Your task to perform on an android device: Empty the shopping cart on target.com. Add "dell alienware" to the cart on target.com, then select checkout. Image 0: 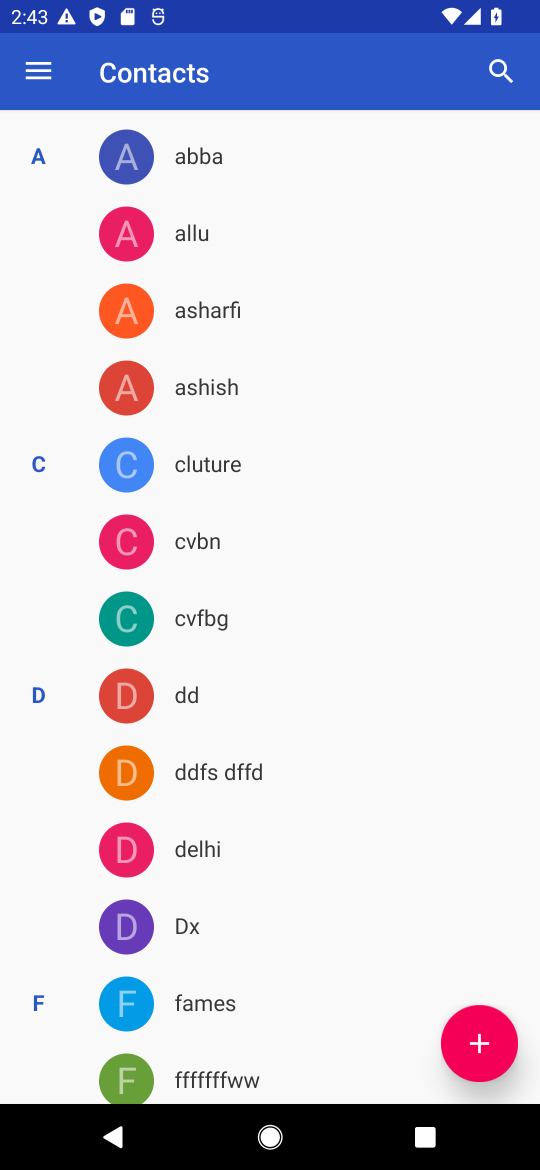
Step 0: press home button
Your task to perform on an android device: Empty the shopping cart on target.com. Add "dell alienware" to the cart on target.com, then select checkout. Image 1: 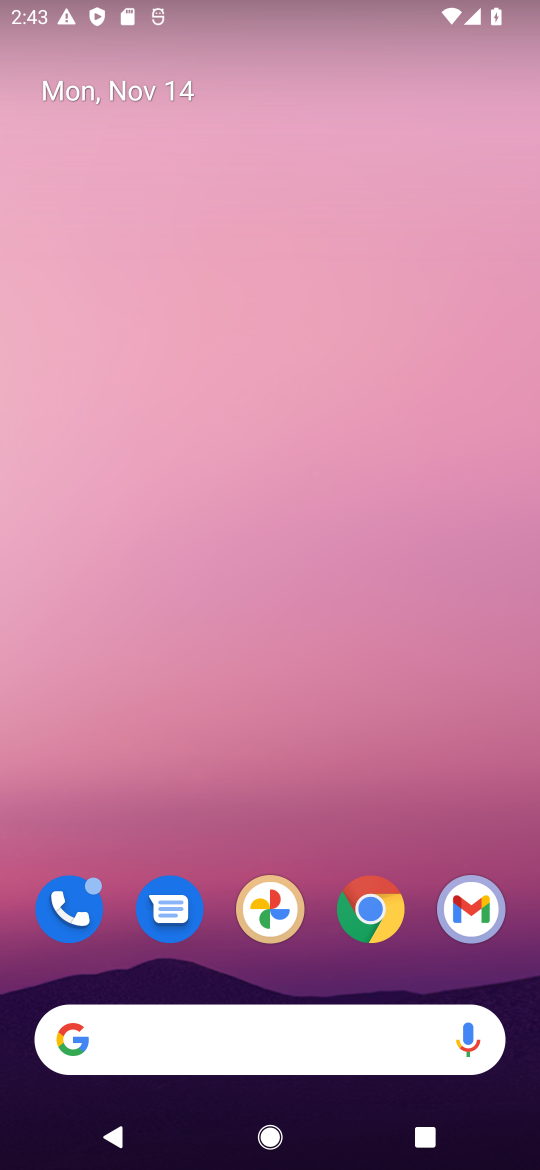
Step 1: drag from (304, 979) to (310, 111)
Your task to perform on an android device: Empty the shopping cart on target.com. Add "dell alienware" to the cart on target.com, then select checkout. Image 2: 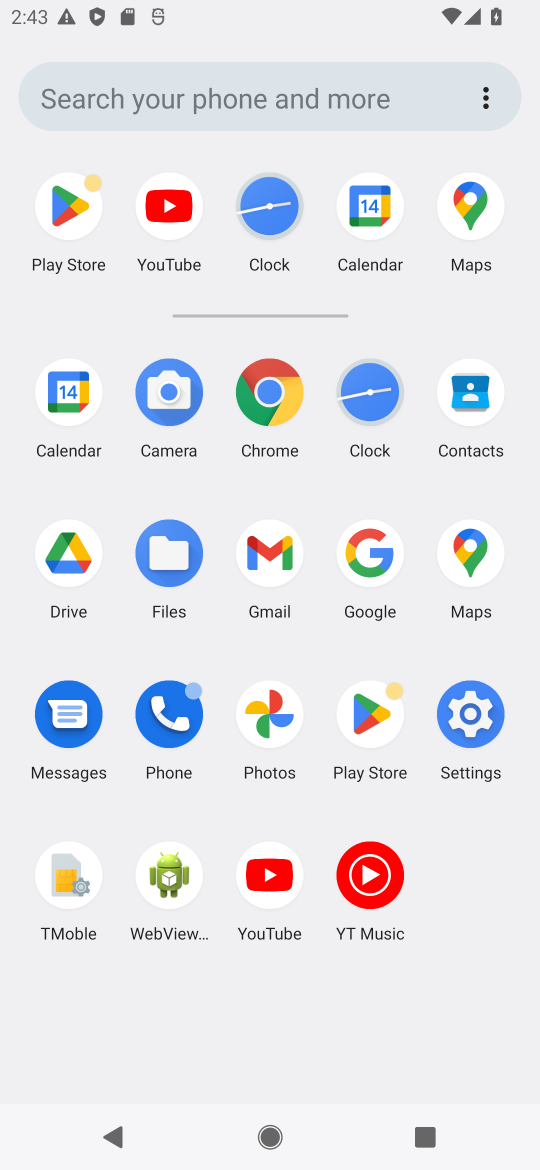
Step 2: click (266, 407)
Your task to perform on an android device: Empty the shopping cart on target.com. Add "dell alienware" to the cart on target.com, then select checkout. Image 3: 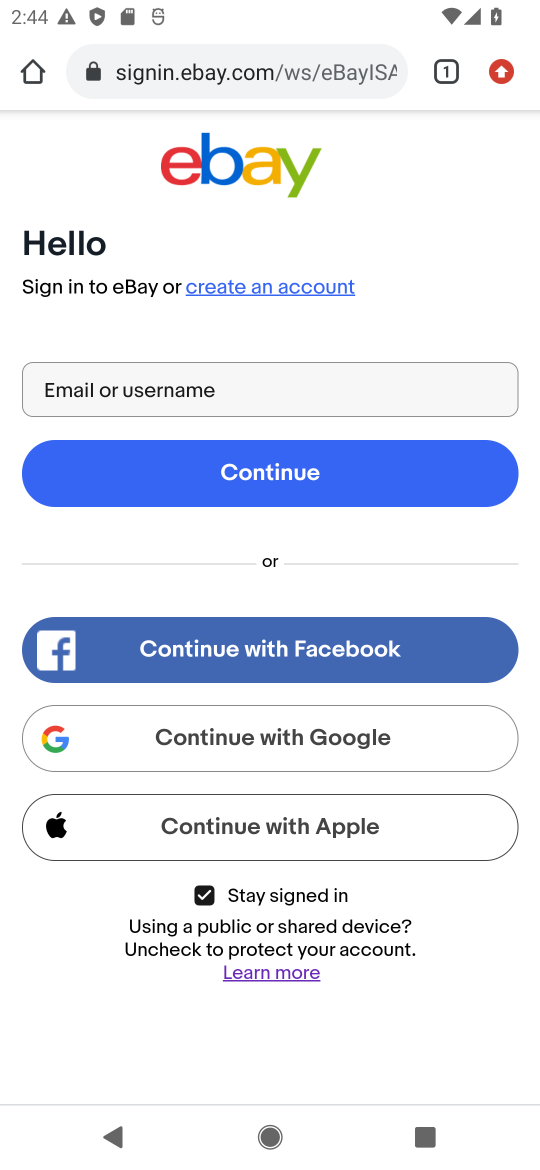
Step 3: click (339, 77)
Your task to perform on an android device: Empty the shopping cart on target.com. Add "dell alienware" to the cart on target.com, then select checkout. Image 4: 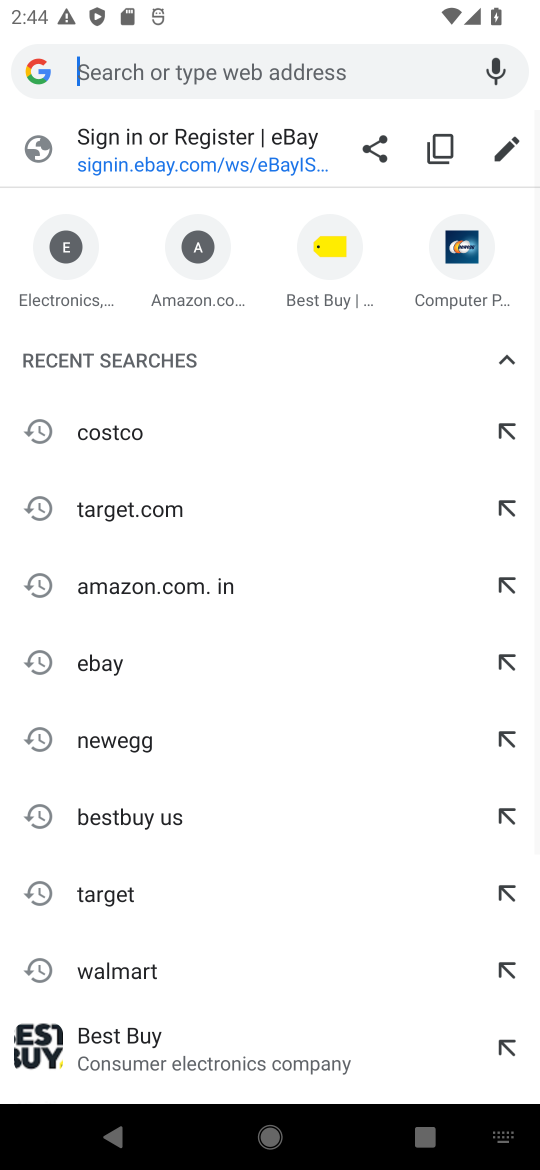
Step 4: type "target.com"
Your task to perform on an android device: Empty the shopping cart on target.com. Add "dell alienware" to the cart on target.com, then select checkout. Image 5: 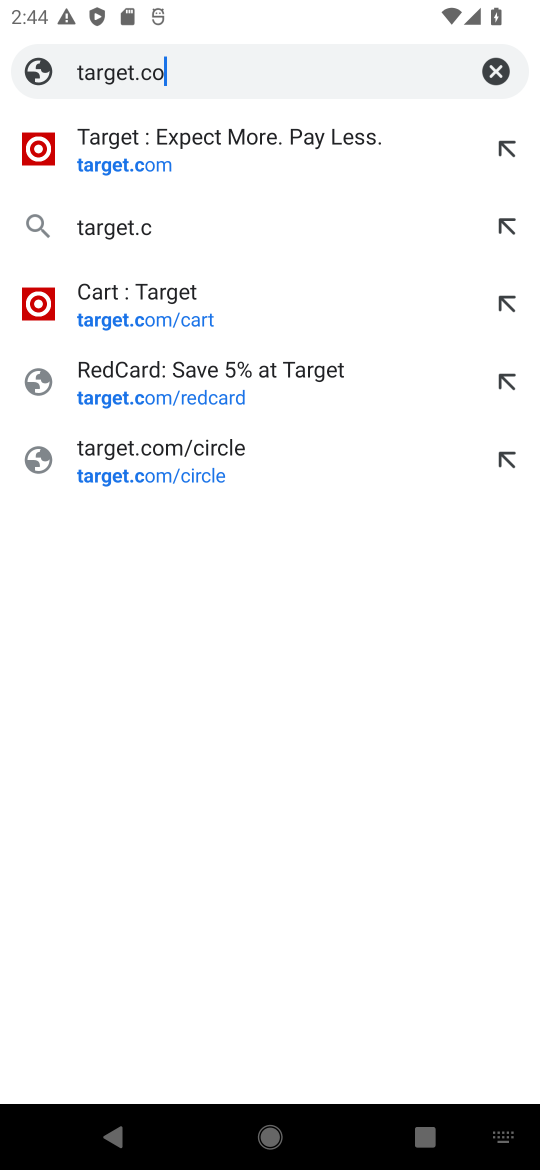
Step 5: press enter
Your task to perform on an android device: Empty the shopping cart on target.com. Add "dell alienware" to the cart on target.com, then select checkout. Image 6: 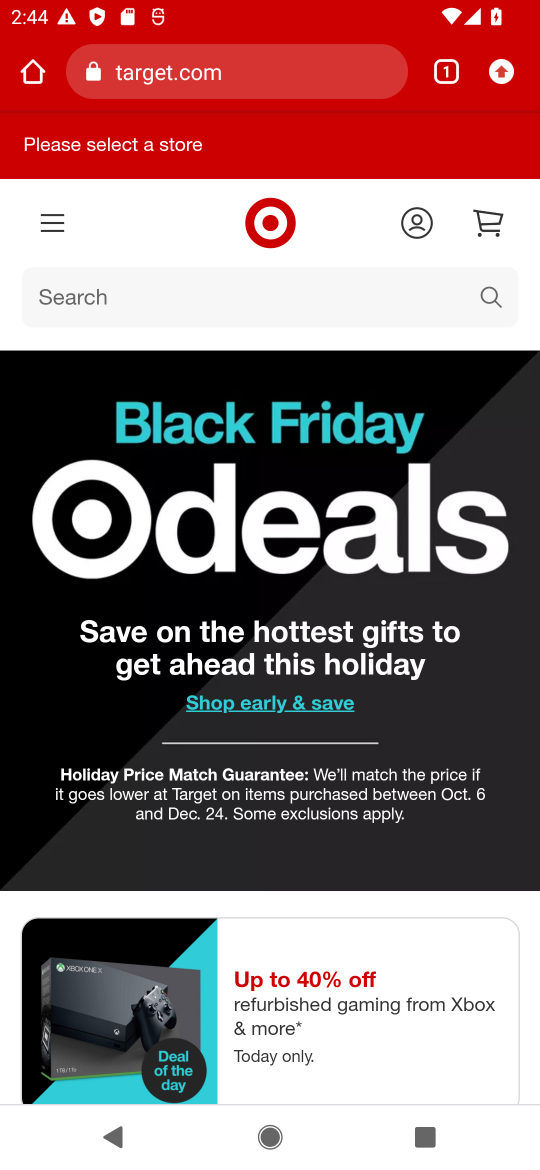
Step 6: click (490, 217)
Your task to perform on an android device: Empty the shopping cart on target.com. Add "dell alienware" to the cart on target.com, then select checkout. Image 7: 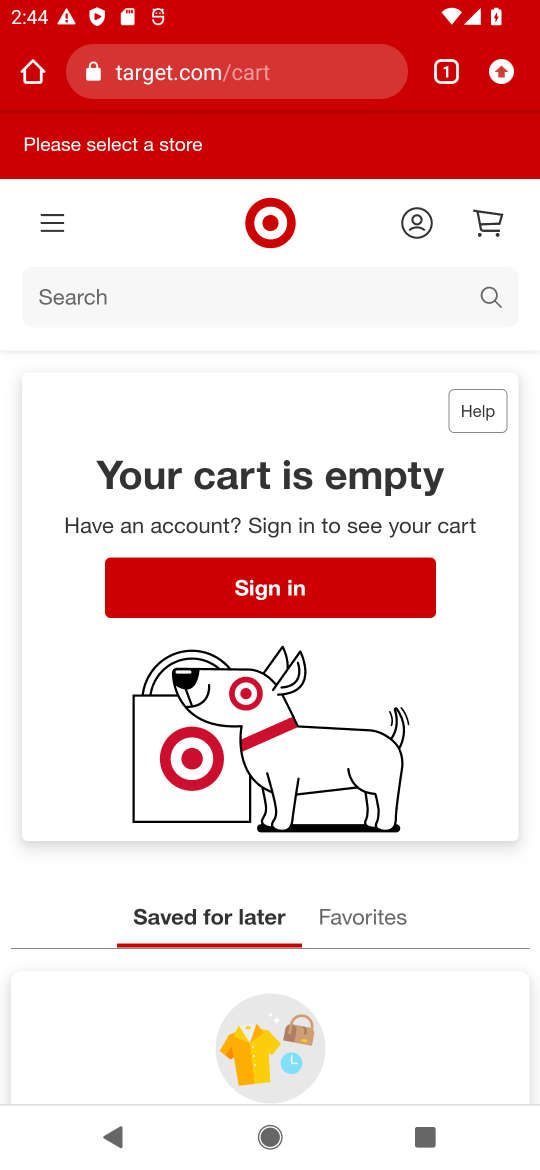
Step 7: click (314, 301)
Your task to perform on an android device: Empty the shopping cart on target.com. Add "dell alienware" to the cart on target.com, then select checkout. Image 8: 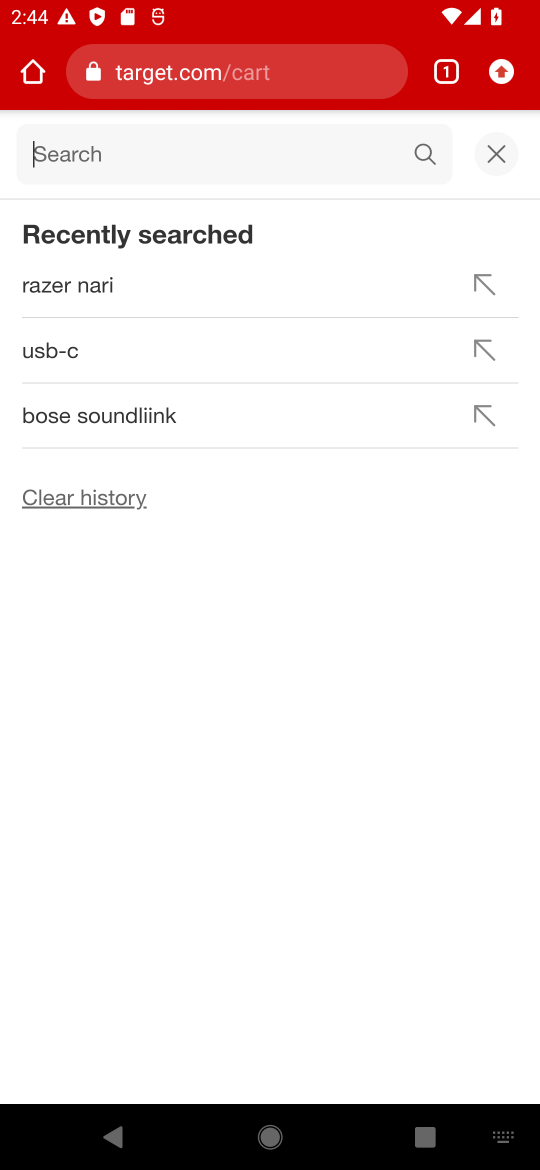
Step 8: type "dell alienware"
Your task to perform on an android device: Empty the shopping cart on target.com. Add "dell alienware" to the cart on target.com, then select checkout. Image 9: 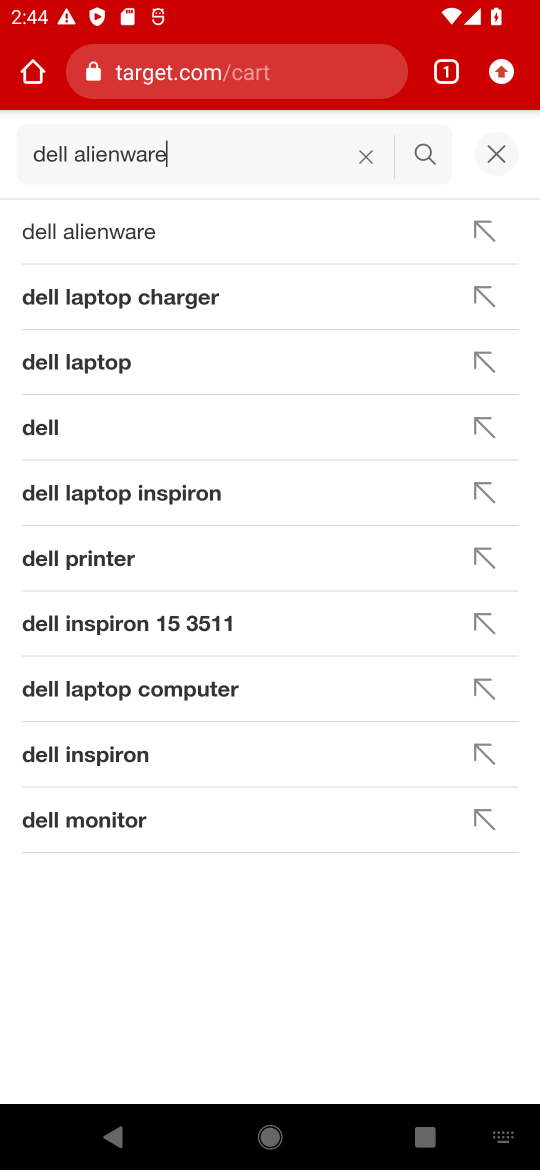
Step 9: press enter
Your task to perform on an android device: Empty the shopping cart on target.com. Add "dell alienware" to the cart on target.com, then select checkout. Image 10: 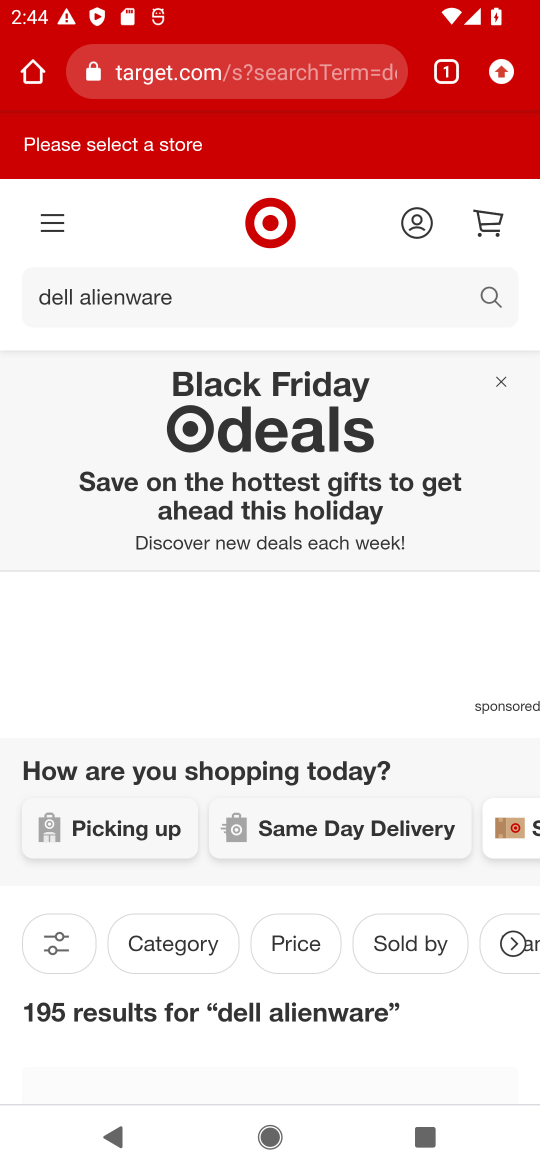
Step 10: task complete